Your task to perform on an android device: turn off wifi Image 0: 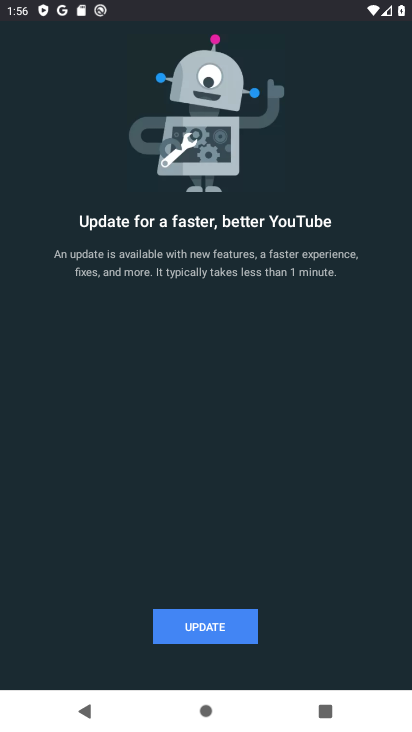
Step 0: press back button
Your task to perform on an android device: turn off wifi Image 1: 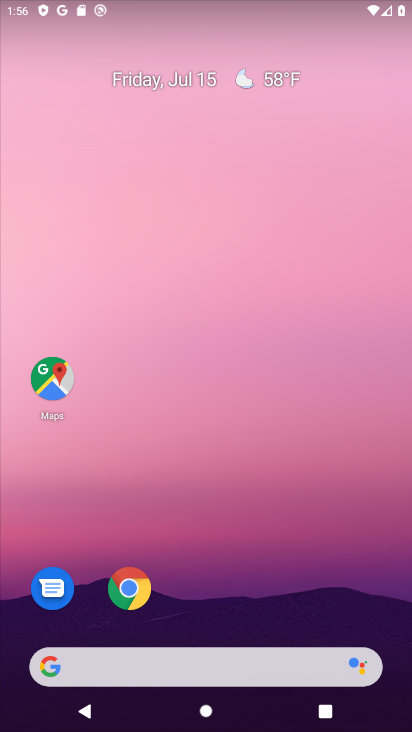
Step 1: drag from (308, 611) to (276, 123)
Your task to perform on an android device: turn off wifi Image 2: 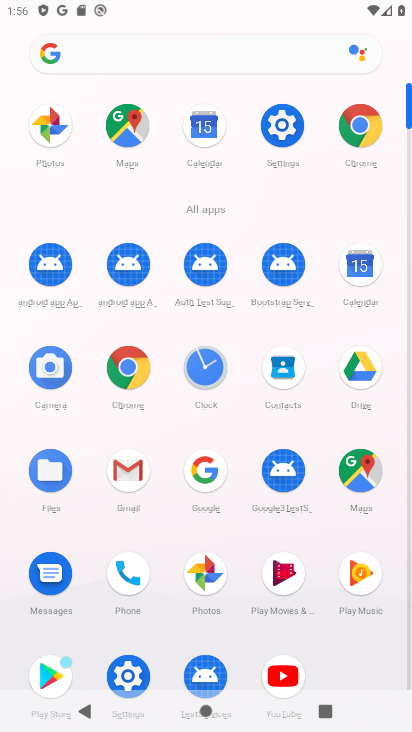
Step 2: click (131, 664)
Your task to perform on an android device: turn off wifi Image 3: 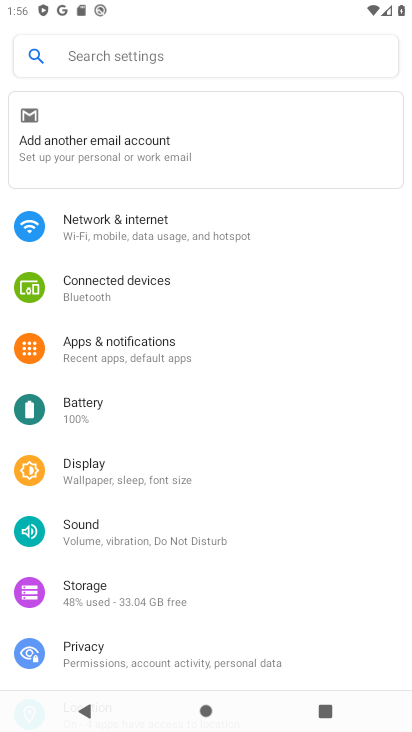
Step 3: click (118, 257)
Your task to perform on an android device: turn off wifi Image 4: 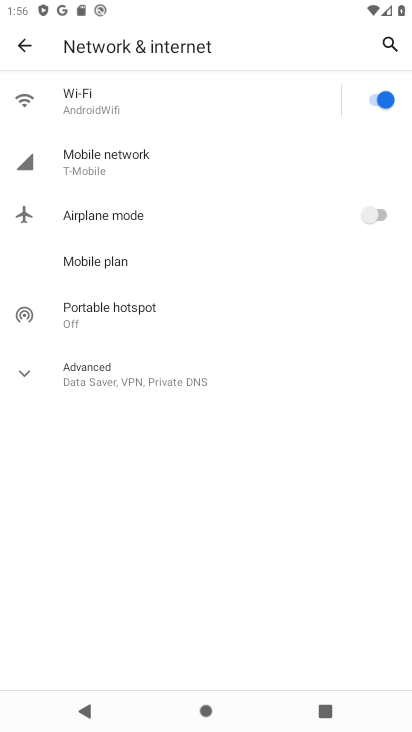
Step 4: click (194, 89)
Your task to perform on an android device: turn off wifi Image 5: 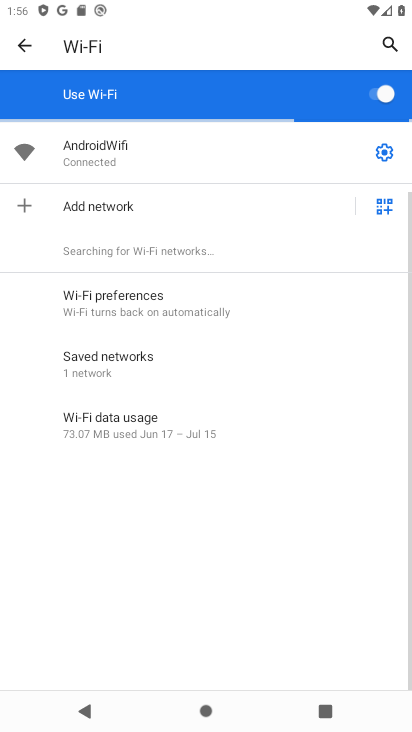
Step 5: task complete